Your task to perform on an android device: change notification settings in the gmail app Image 0: 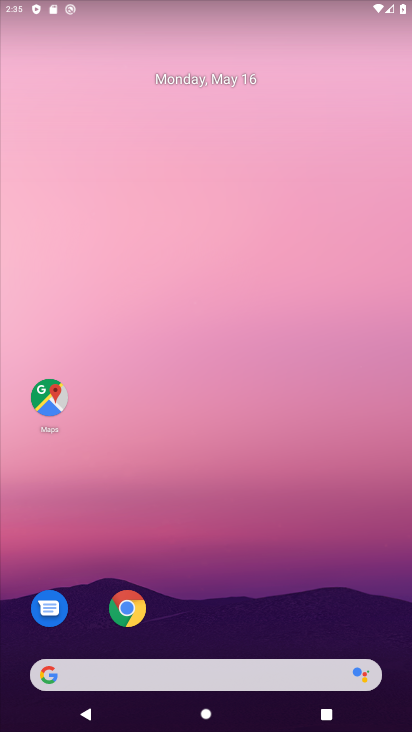
Step 0: drag from (233, 599) to (175, 146)
Your task to perform on an android device: change notification settings in the gmail app Image 1: 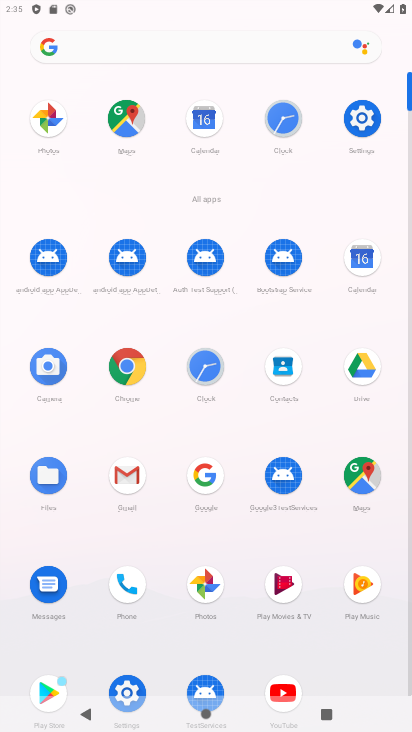
Step 1: click (128, 473)
Your task to perform on an android device: change notification settings in the gmail app Image 2: 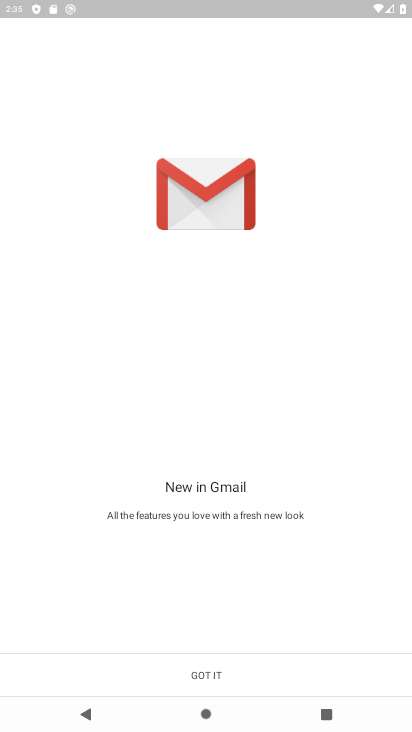
Step 2: click (213, 671)
Your task to perform on an android device: change notification settings in the gmail app Image 3: 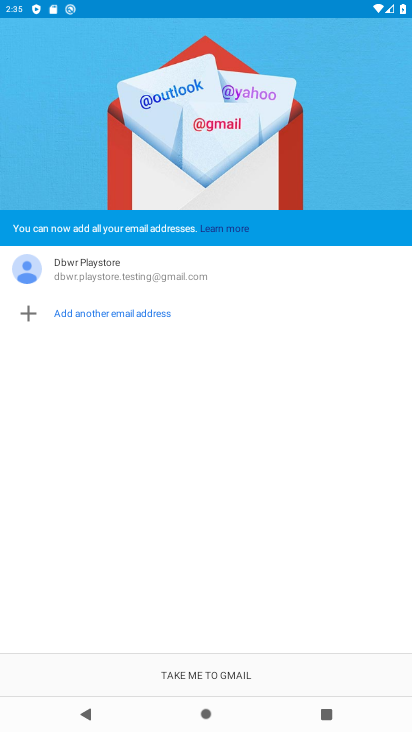
Step 3: click (213, 671)
Your task to perform on an android device: change notification settings in the gmail app Image 4: 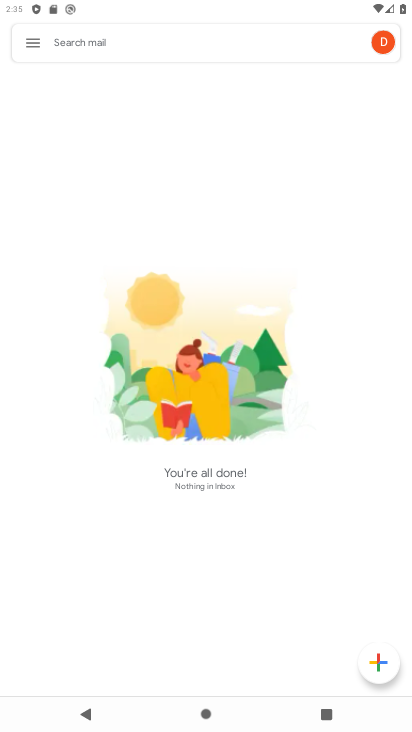
Step 4: click (34, 42)
Your task to perform on an android device: change notification settings in the gmail app Image 5: 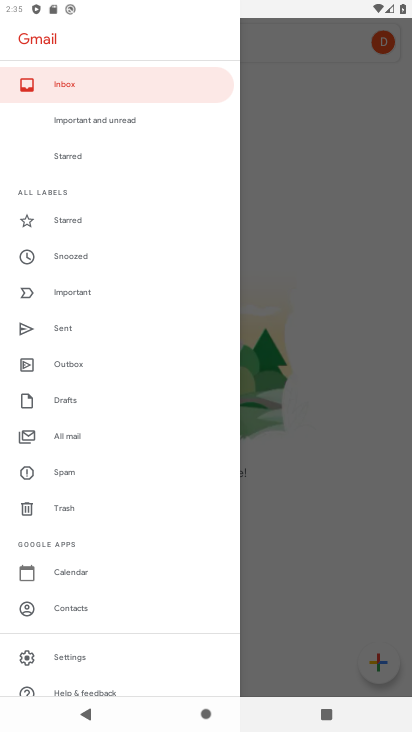
Step 5: click (80, 655)
Your task to perform on an android device: change notification settings in the gmail app Image 6: 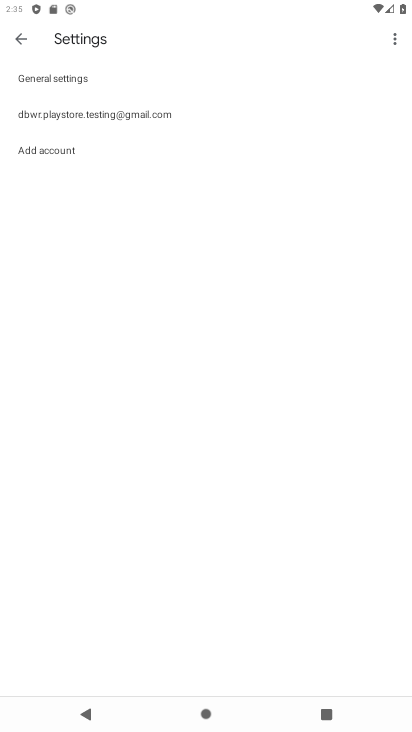
Step 6: click (86, 117)
Your task to perform on an android device: change notification settings in the gmail app Image 7: 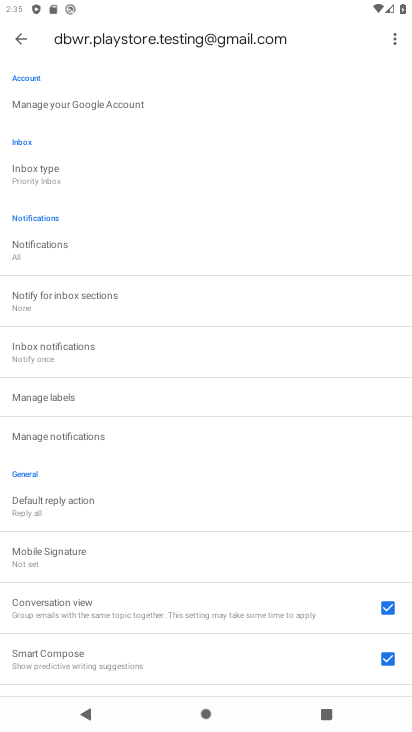
Step 7: drag from (71, 490) to (152, 340)
Your task to perform on an android device: change notification settings in the gmail app Image 8: 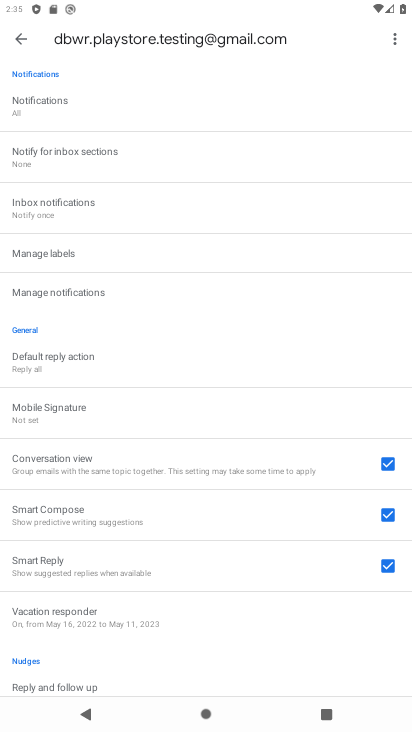
Step 8: drag from (108, 532) to (188, 409)
Your task to perform on an android device: change notification settings in the gmail app Image 9: 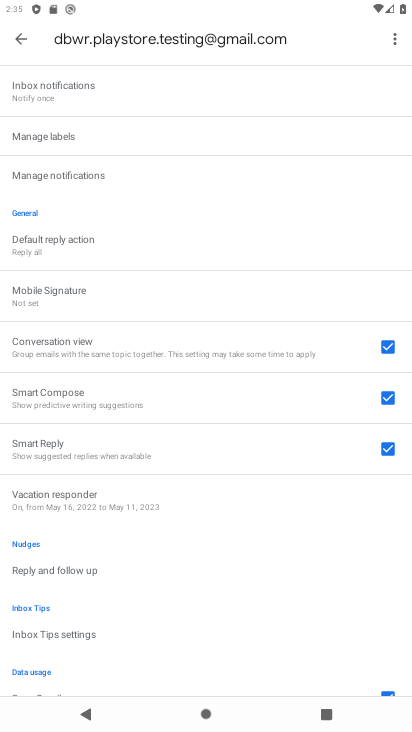
Step 9: click (86, 173)
Your task to perform on an android device: change notification settings in the gmail app Image 10: 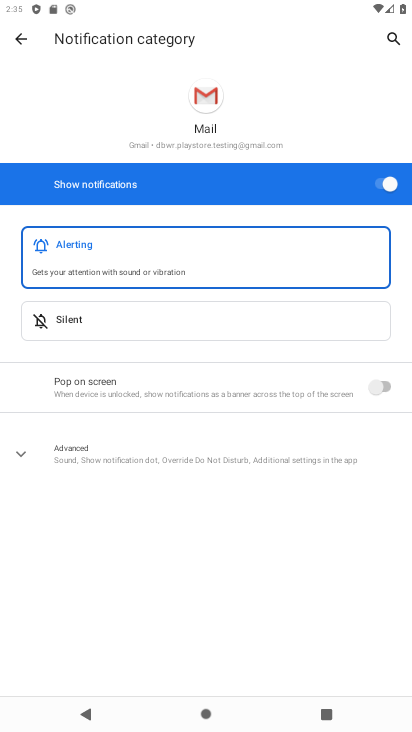
Step 10: click (384, 186)
Your task to perform on an android device: change notification settings in the gmail app Image 11: 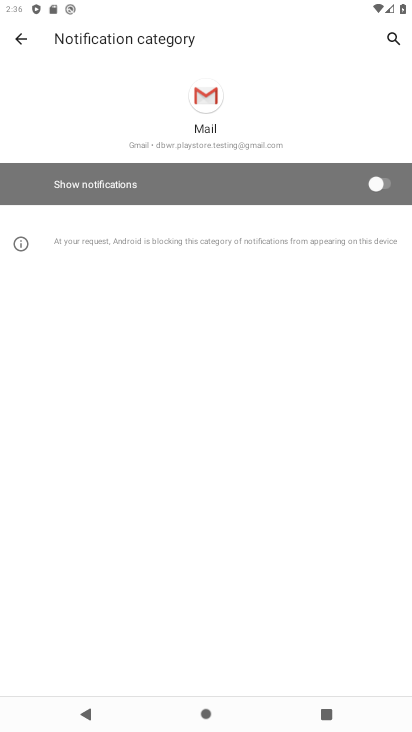
Step 11: task complete